Your task to perform on an android device: Open settings Image 0: 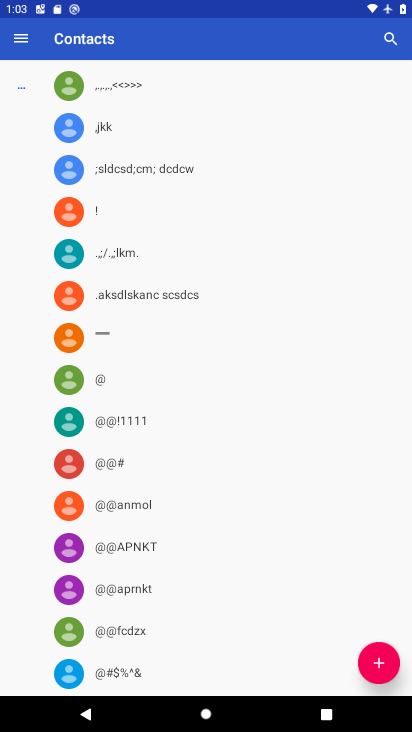
Step 0: press home button
Your task to perform on an android device: Open settings Image 1: 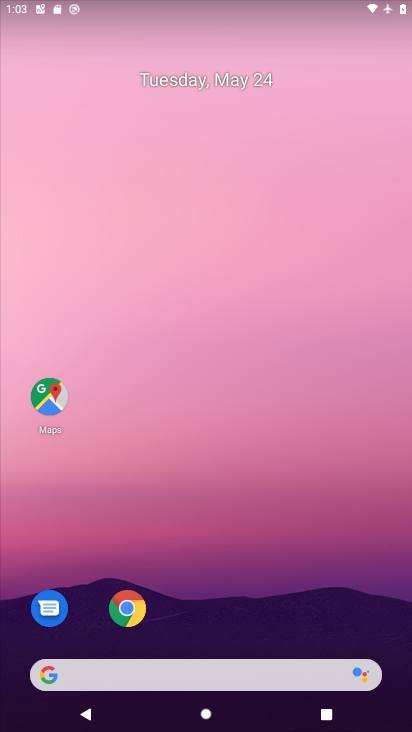
Step 1: drag from (283, 572) to (256, 93)
Your task to perform on an android device: Open settings Image 2: 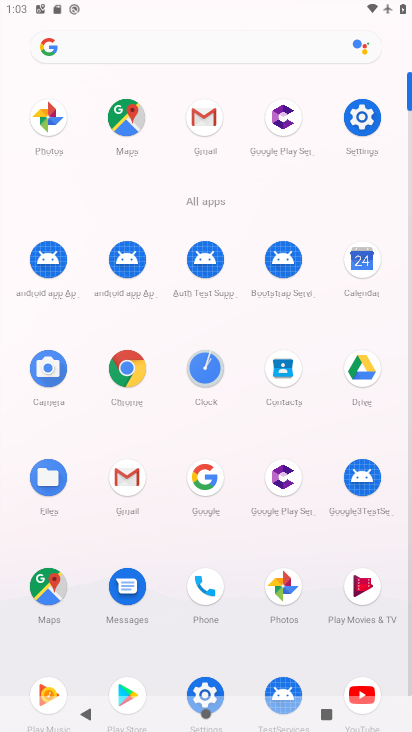
Step 2: click (370, 140)
Your task to perform on an android device: Open settings Image 3: 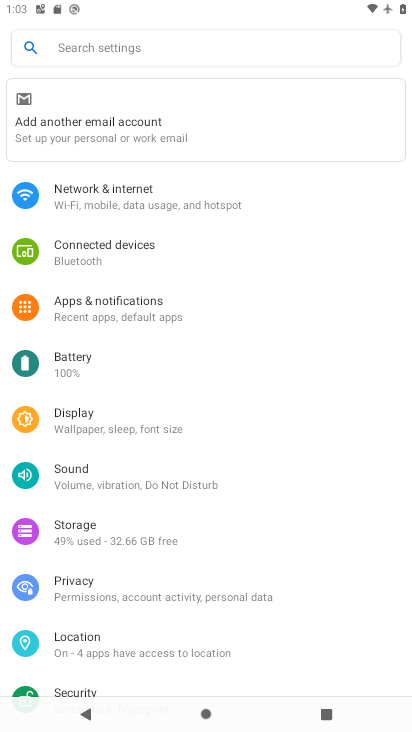
Step 3: task complete